Your task to perform on an android device: Open display settings Image 0: 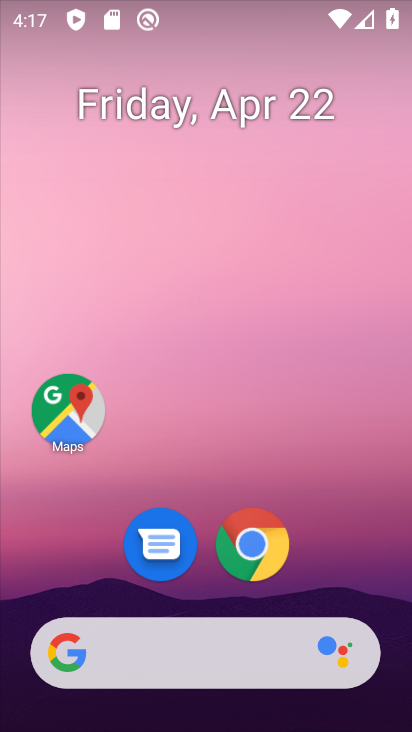
Step 0: drag from (214, 592) to (245, 254)
Your task to perform on an android device: Open display settings Image 1: 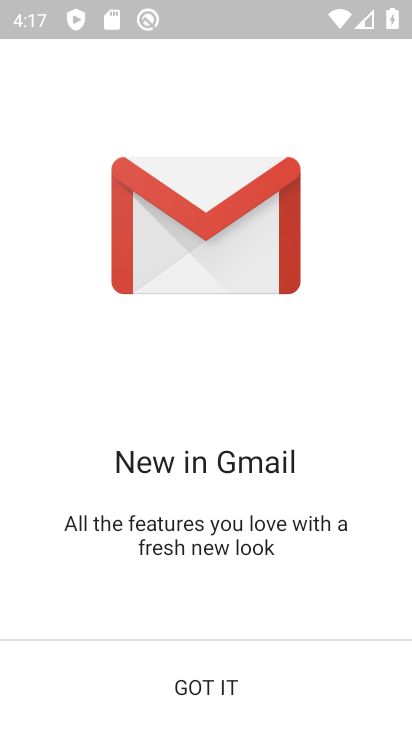
Step 1: click (198, 691)
Your task to perform on an android device: Open display settings Image 2: 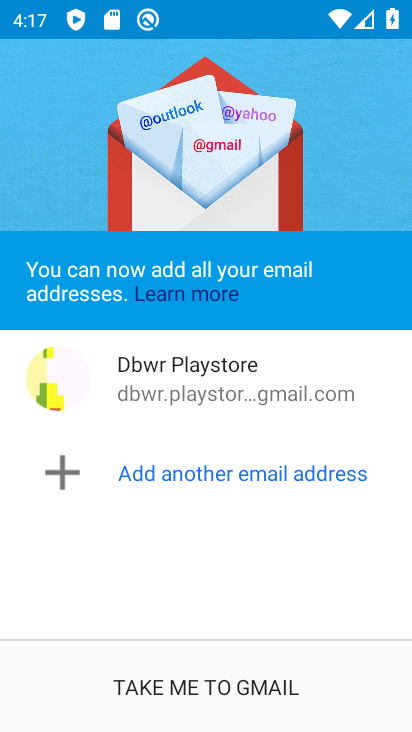
Step 2: click (195, 681)
Your task to perform on an android device: Open display settings Image 3: 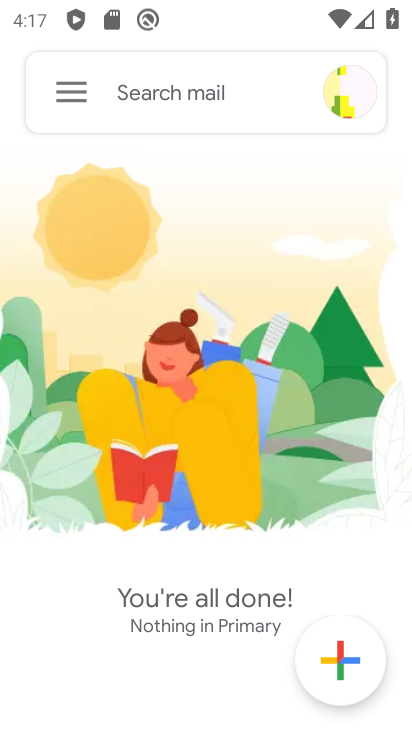
Step 3: press home button
Your task to perform on an android device: Open display settings Image 4: 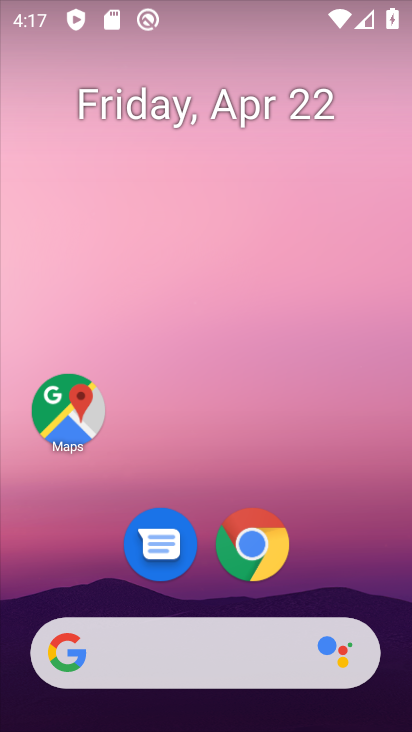
Step 4: drag from (194, 600) to (250, 195)
Your task to perform on an android device: Open display settings Image 5: 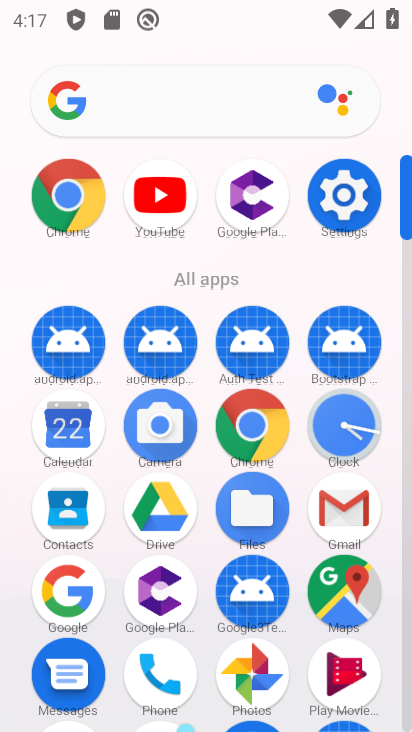
Step 5: click (341, 211)
Your task to perform on an android device: Open display settings Image 6: 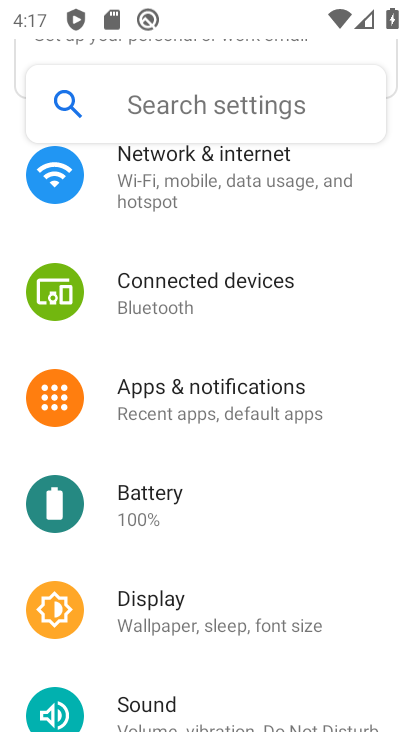
Step 6: click (178, 612)
Your task to perform on an android device: Open display settings Image 7: 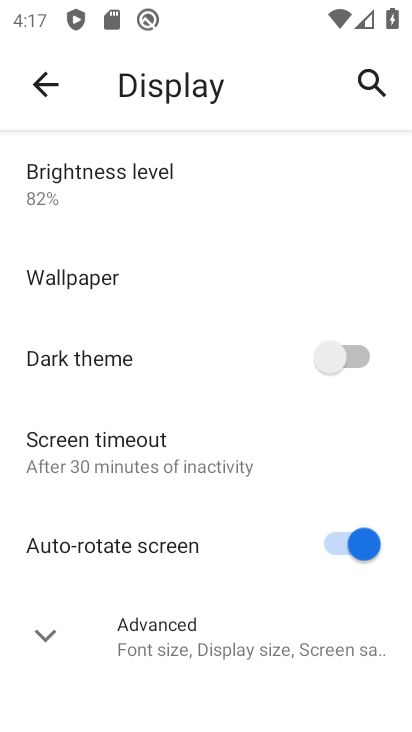
Step 7: click (155, 633)
Your task to perform on an android device: Open display settings Image 8: 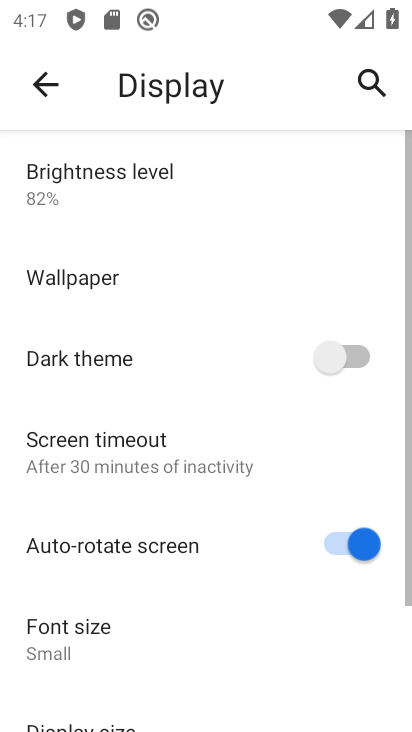
Step 8: task complete